Your task to perform on an android device: Open wifi settings Image 0: 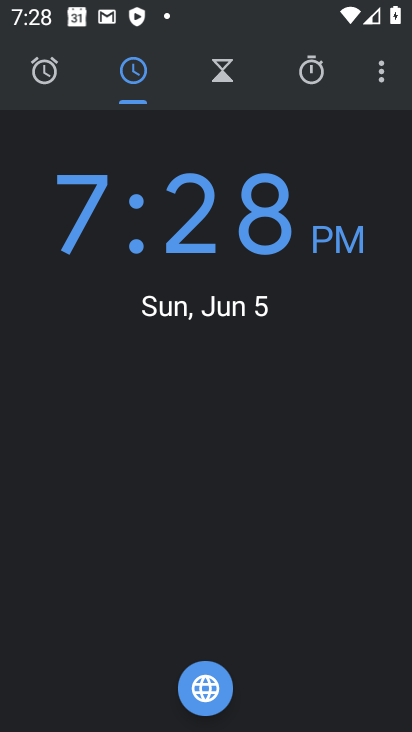
Step 0: press home button
Your task to perform on an android device: Open wifi settings Image 1: 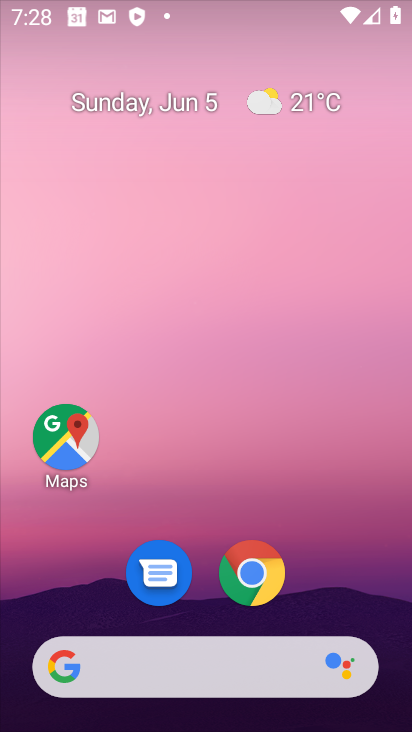
Step 1: drag from (230, 641) to (220, 266)
Your task to perform on an android device: Open wifi settings Image 2: 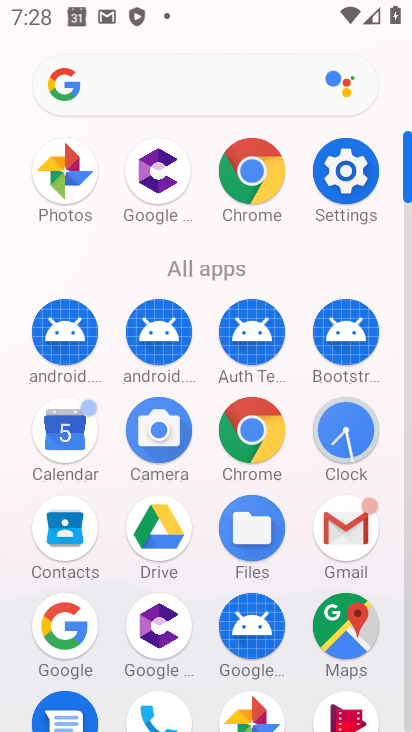
Step 2: click (353, 163)
Your task to perform on an android device: Open wifi settings Image 3: 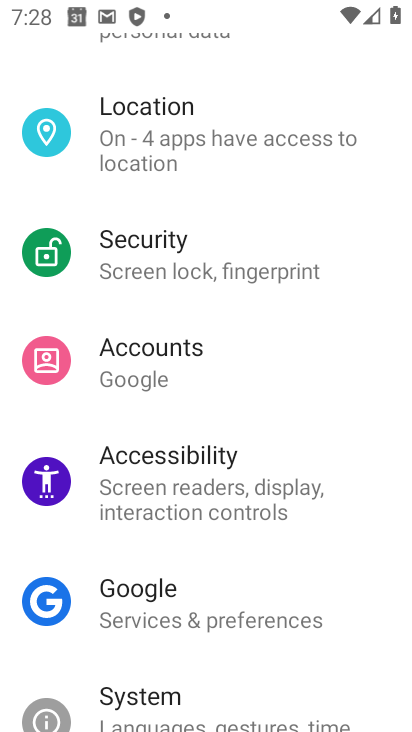
Step 3: drag from (253, 166) to (274, 592)
Your task to perform on an android device: Open wifi settings Image 4: 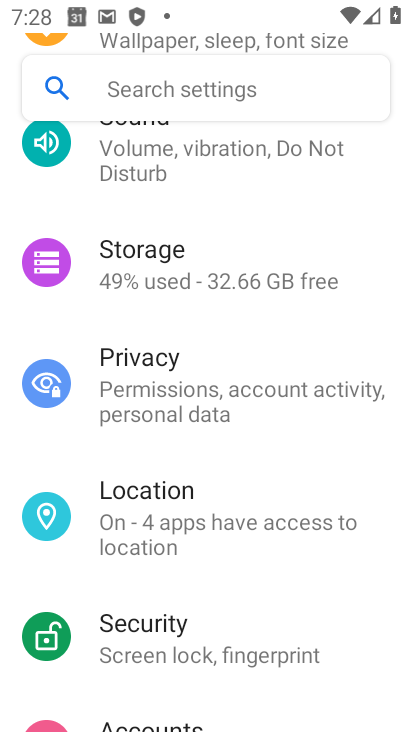
Step 4: drag from (265, 199) to (195, 644)
Your task to perform on an android device: Open wifi settings Image 5: 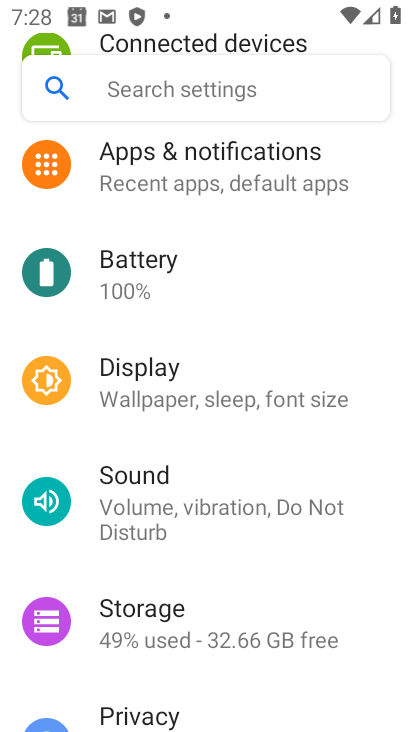
Step 5: drag from (214, 179) to (223, 611)
Your task to perform on an android device: Open wifi settings Image 6: 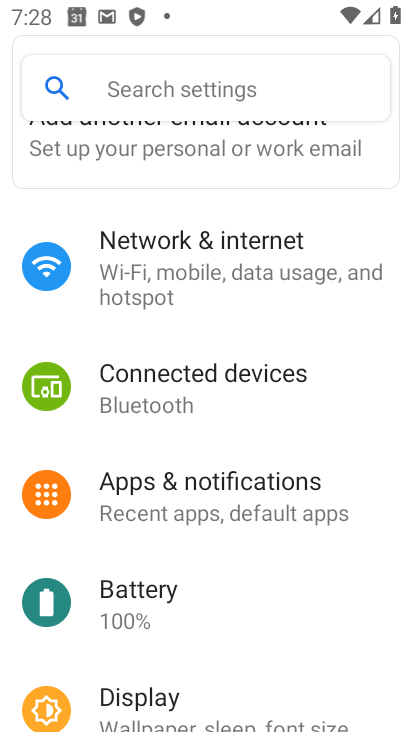
Step 6: drag from (234, 248) to (195, 636)
Your task to perform on an android device: Open wifi settings Image 7: 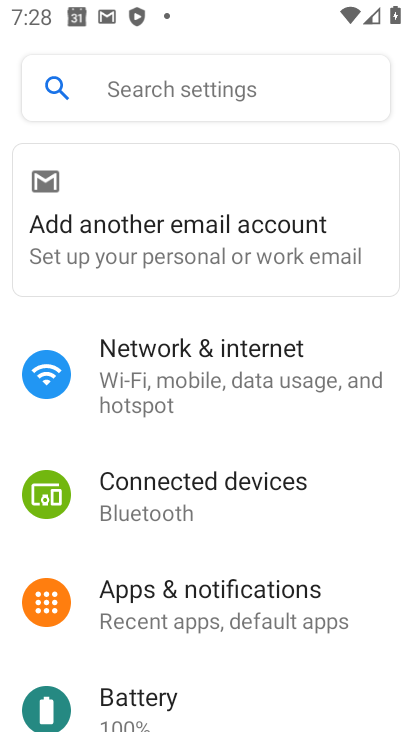
Step 7: click (186, 384)
Your task to perform on an android device: Open wifi settings Image 8: 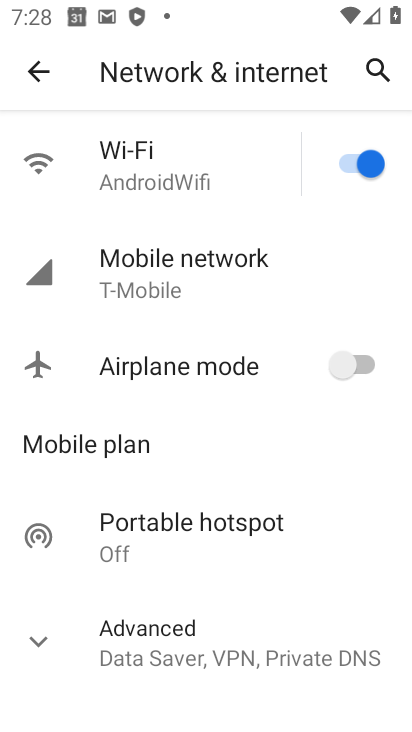
Step 8: click (201, 161)
Your task to perform on an android device: Open wifi settings Image 9: 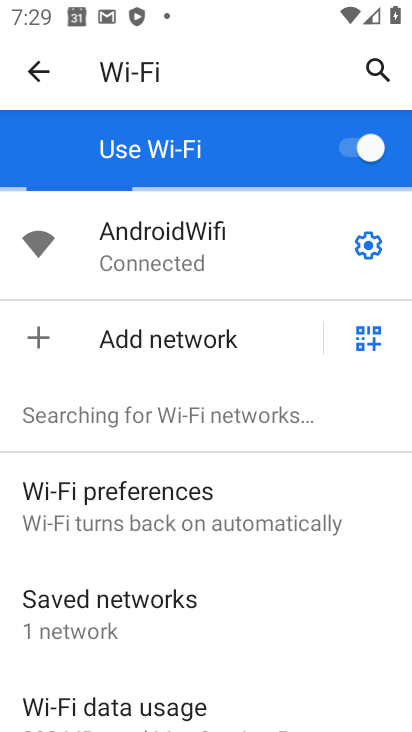
Step 9: task complete